Your task to perform on an android device: What's the weather like in Tokyo? Image 0: 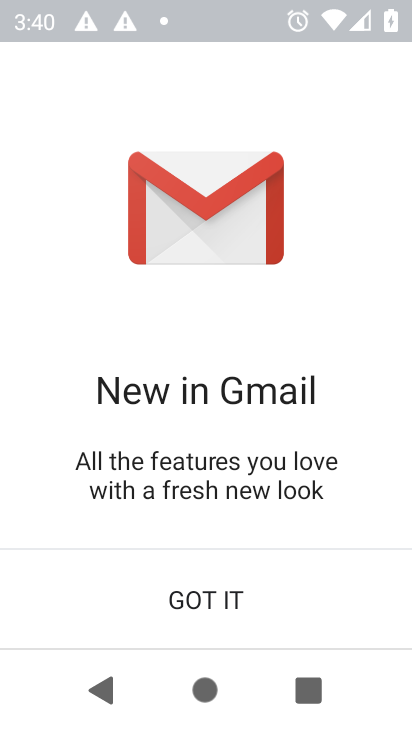
Step 0: press home button
Your task to perform on an android device: What's the weather like in Tokyo? Image 1: 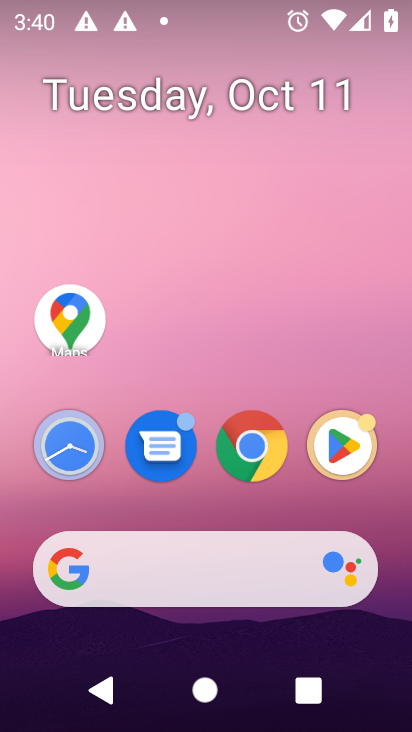
Step 1: click (259, 445)
Your task to perform on an android device: What's the weather like in Tokyo? Image 2: 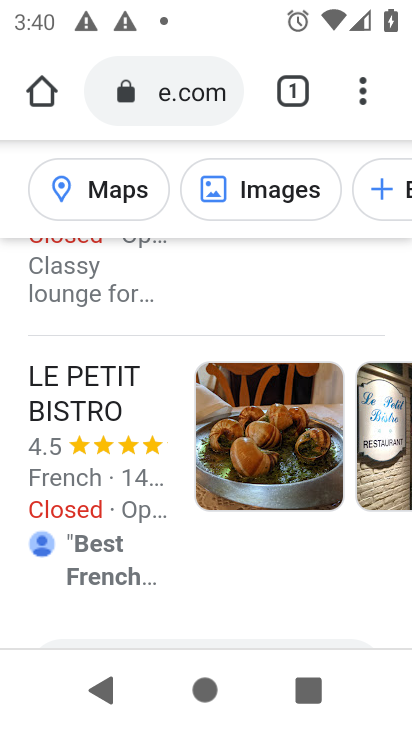
Step 2: click (157, 88)
Your task to perform on an android device: What's the weather like in Tokyo? Image 3: 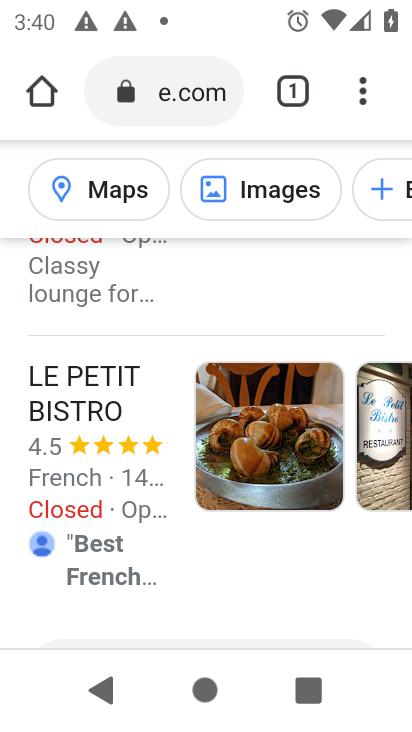
Step 3: click (166, 94)
Your task to perform on an android device: What's the weather like in Tokyo? Image 4: 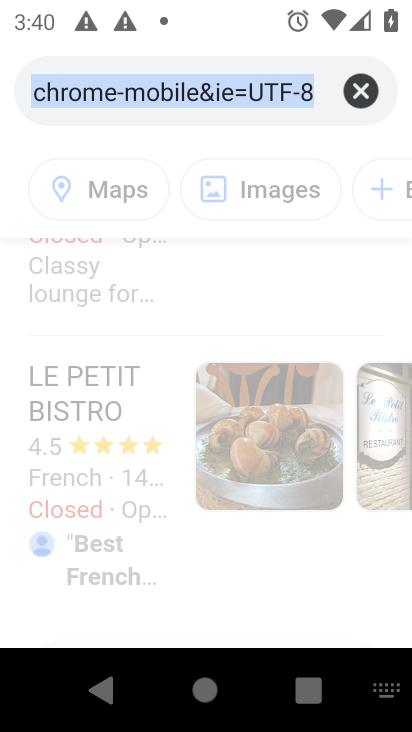
Step 4: click (366, 86)
Your task to perform on an android device: What's the weather like in Tokyo? Image 5: 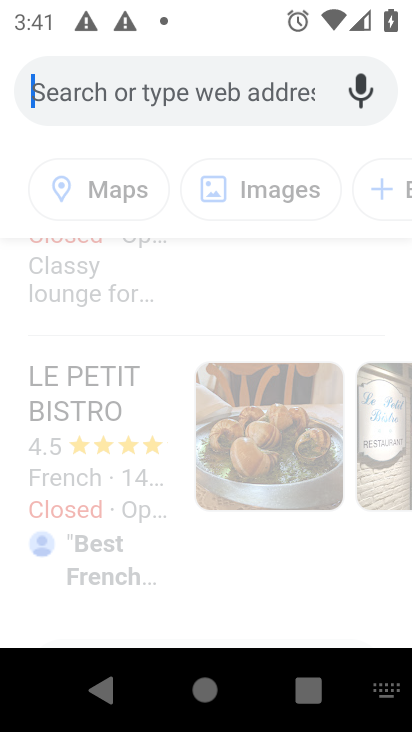
Step 5: type "tokyo weather "
Your task to perform on an android device: What's the weather like in Tokyo? Image 6: 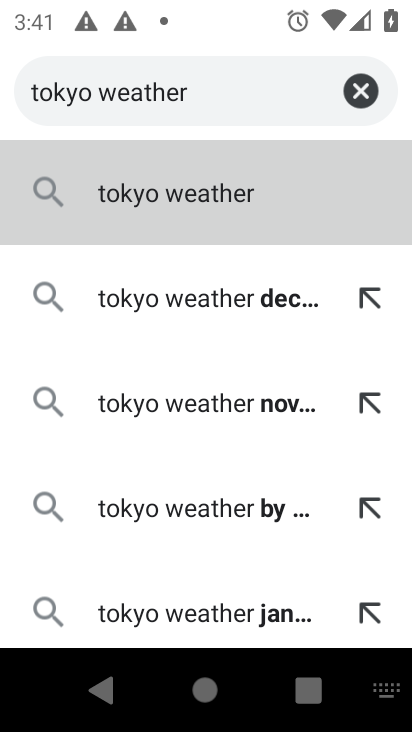
Step 6: click (183, 210)
Your task to perform on an android device: What's the weather like in Tokyo? Image 7: 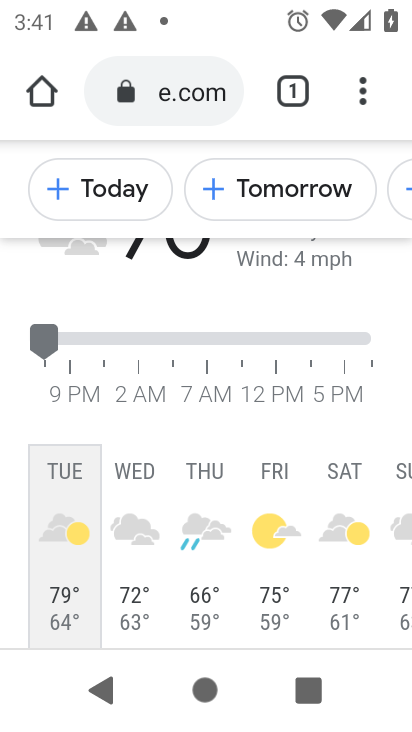
Step 7: task complete